Your task to perform on an android device: remove spam from my inbox in the gmail app Image 0: 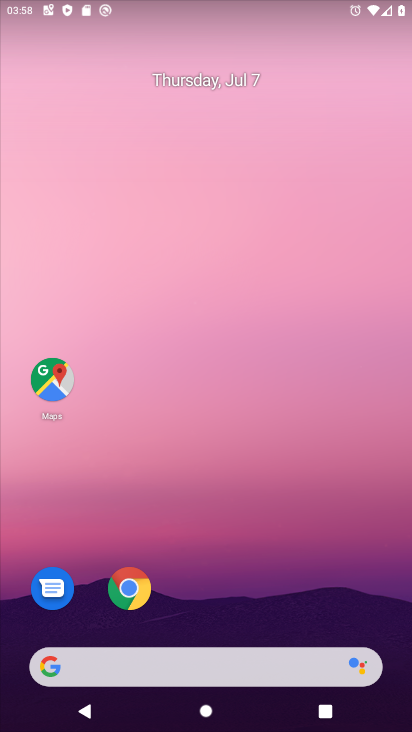
Step 0: drag from (235, 640) to (270, 346)
Your task to perform on an android device: remove spam from my inbox in the gmail app Image 1: 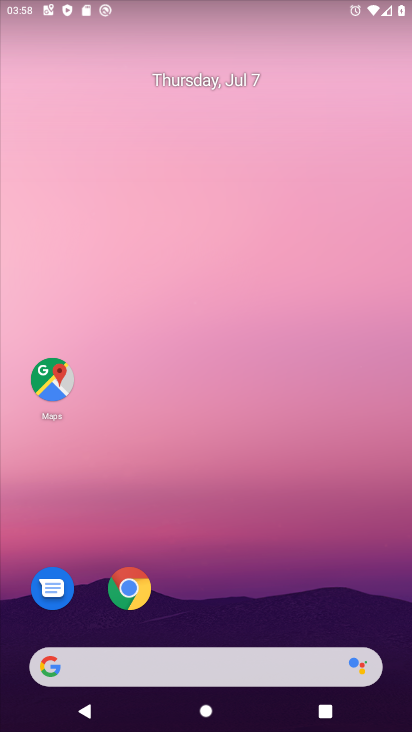
Step 1: drag from (193, 655) to (235, 69)
Your task to perform on an android device: remove spam from my inbox in the gmail app Image 2: 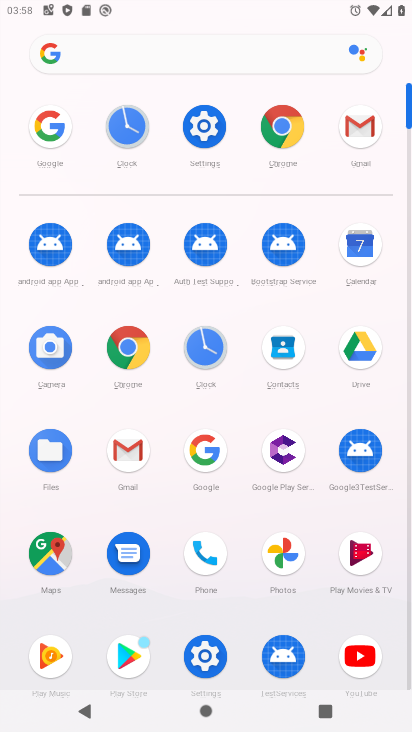
Step 2: click (360, 133)
Your task to perform on an android device: remove spam from my inbox in the gmail app Image 3: 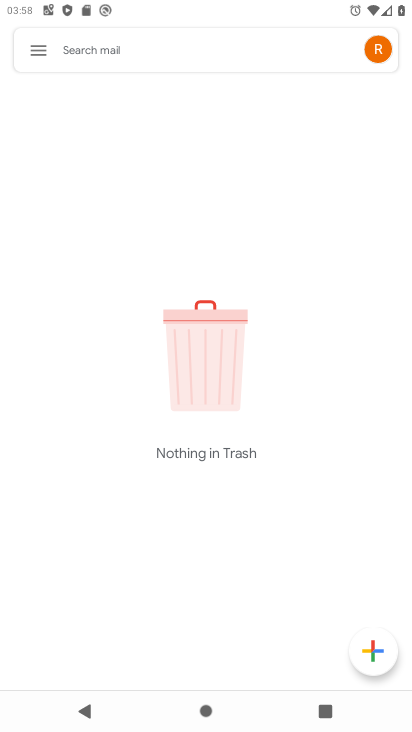
Step 3: click (38, 38)
Your task to perform on an android device: remove spam from my inbox in the gmail app Image 4: 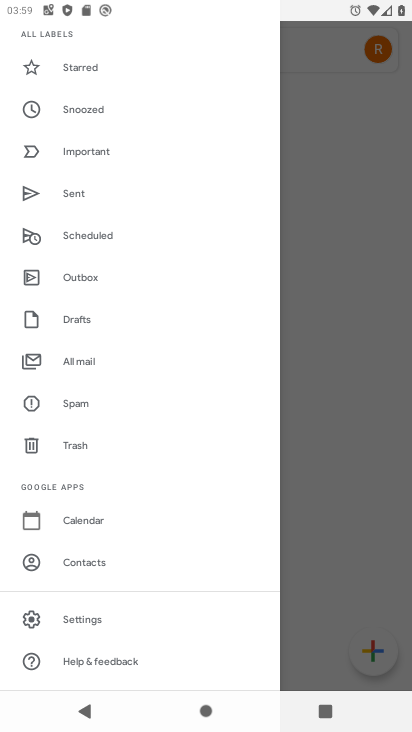
Step 4: click (85, 403)
Your task to perform on an android device: remove spam from my inbox in the gmail app Image 5: 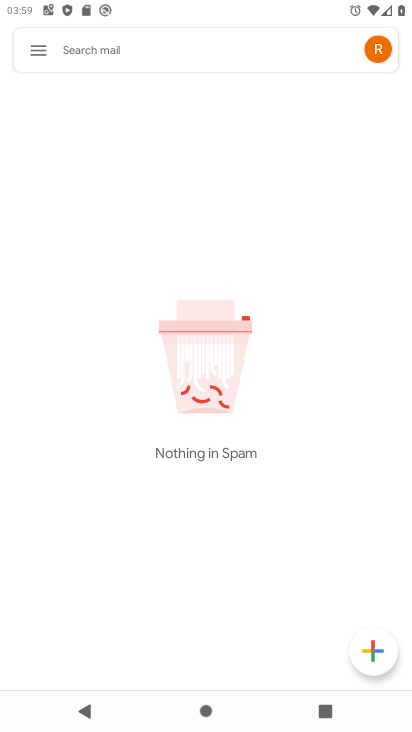
Step 5: task complete